Your task to perform on an android device: Go to Android settings Image 0: 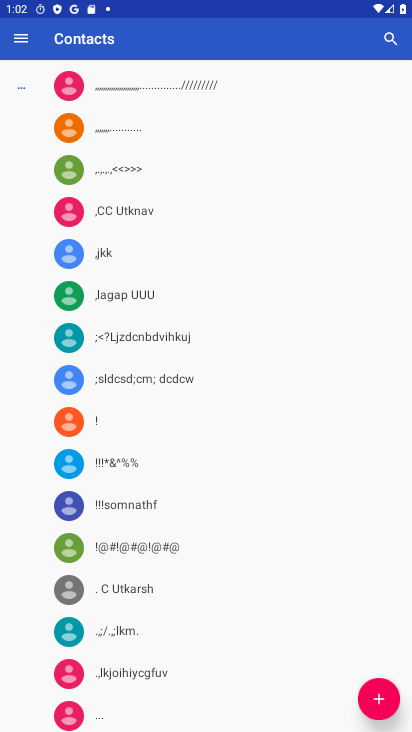
Step 0: press home button
Your task to perform on an android device: Go to Android settings Image 1: 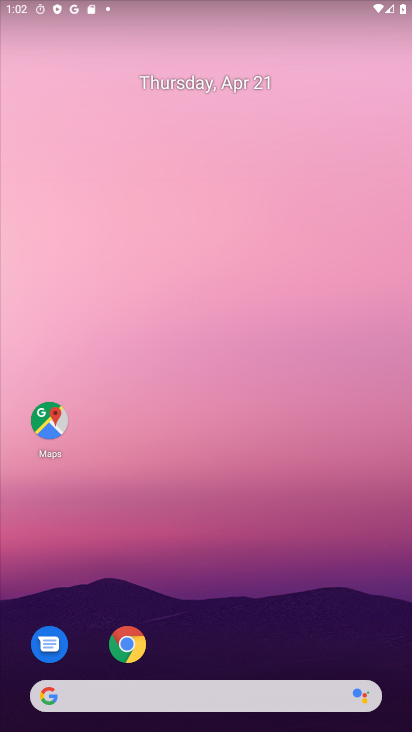
Step 1: drag from (237, 618) to (214, 108)
Your task to perform on an android device: Go to Android settings Image 2: 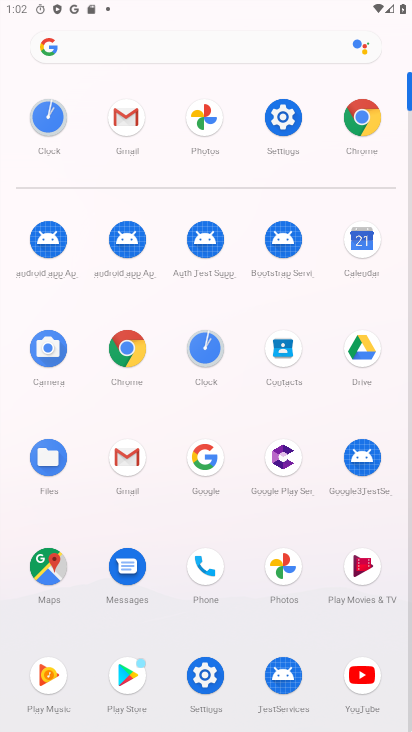
Step 2: click (281, 115)
Your task to perform on an android device: Go to Android settings Image 3: 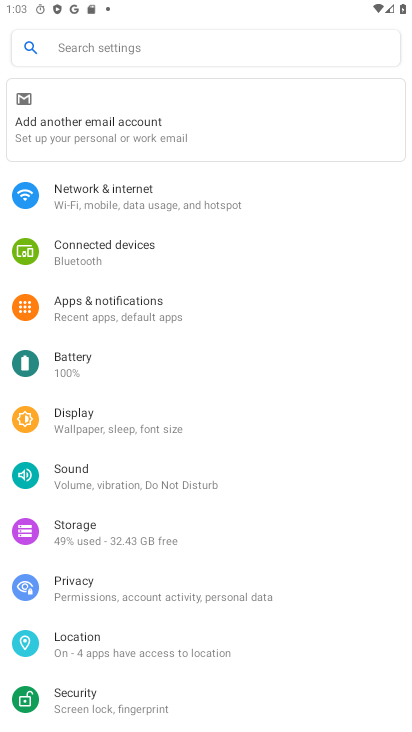
Step 3: task complete